Your task to perform on an android device: Open network settings Image 0: 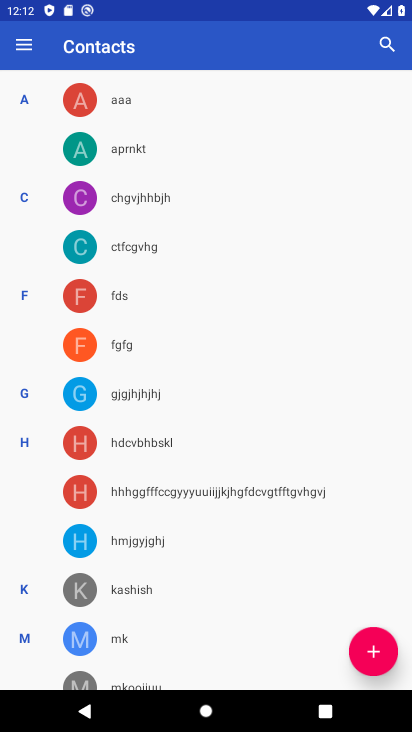
Step 0: press home button
Your task to perform on an android device: Open network settings Image 1: 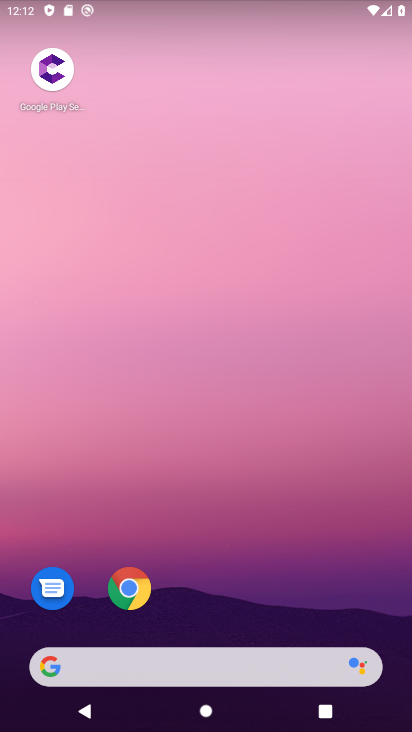
Step 1: drag from (282, 580) to (340, 43)
Your task to perform on an android device: Open network settings Image 2: 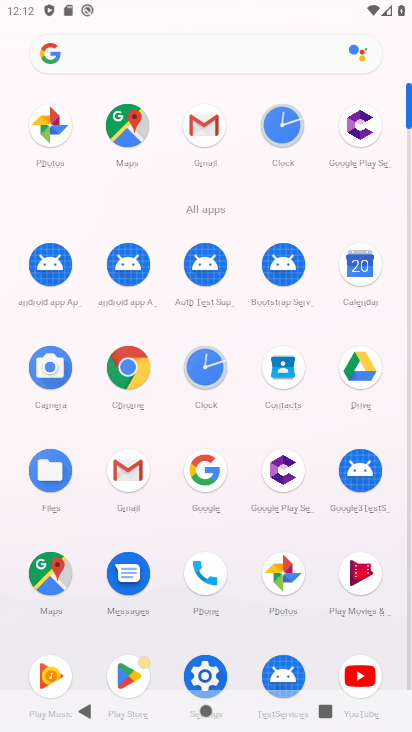
Step 2: click (186, 676)
Your task to perform on an android device: Open network settings Image 3: 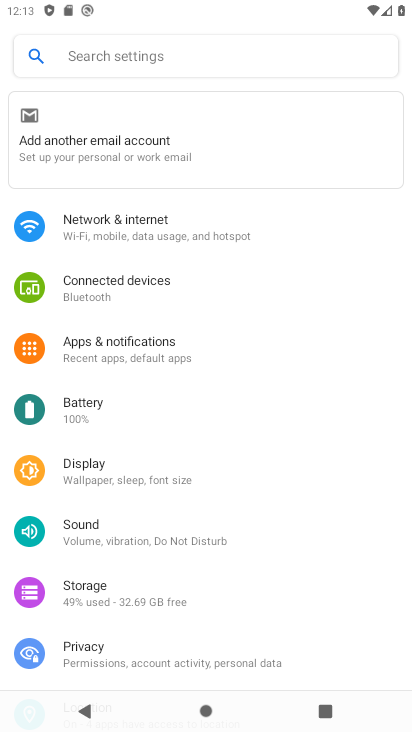
Step 3: click (178, 213)
Your task to perform on an android device: Open network settings Image 4: 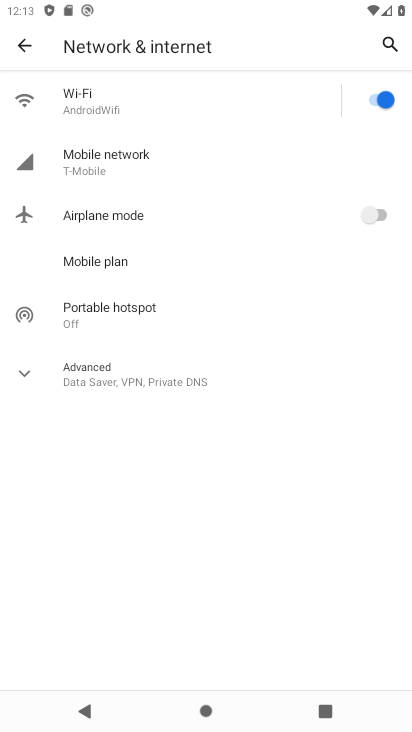
Step 4: click (104, 162)
Your task to perform on an android device: Open network settings Image 5: 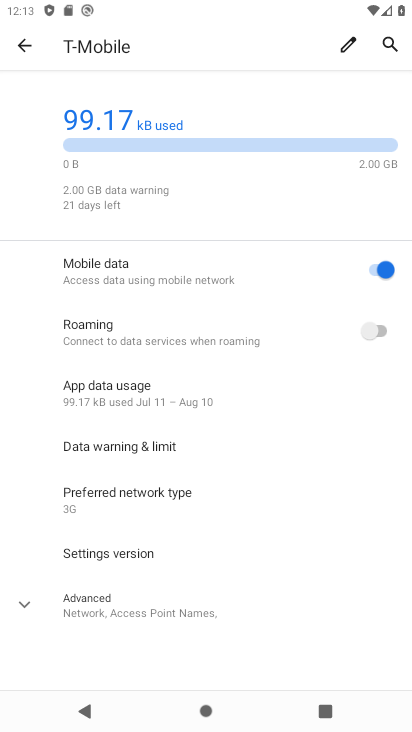
Step 5: task complete